Your task to perform on an android device: turn on airplane mode Image 0: 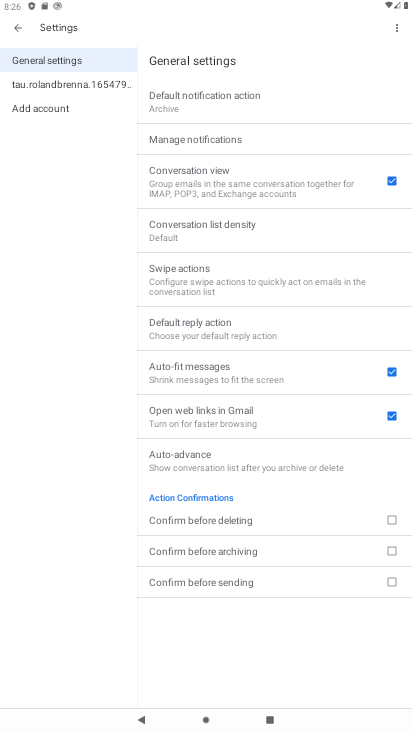
Step 0: drag from (226, 620) to (221, 410)
Your task to perform on an android device: turn on airplane mode Image 1: 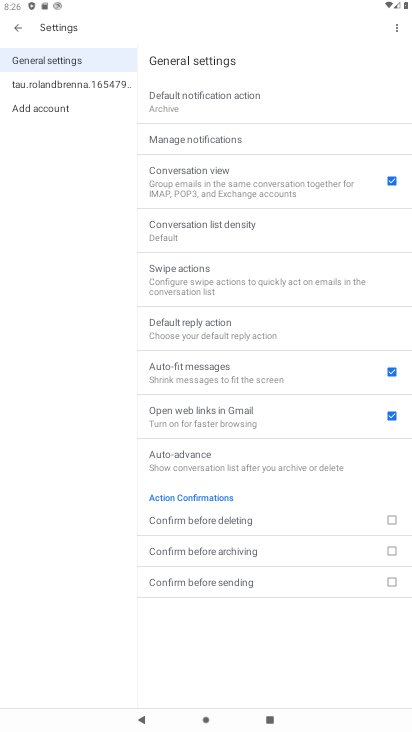
Step 1: press home button
Your task to perform on an android device: turn on airplane mode Image 2: 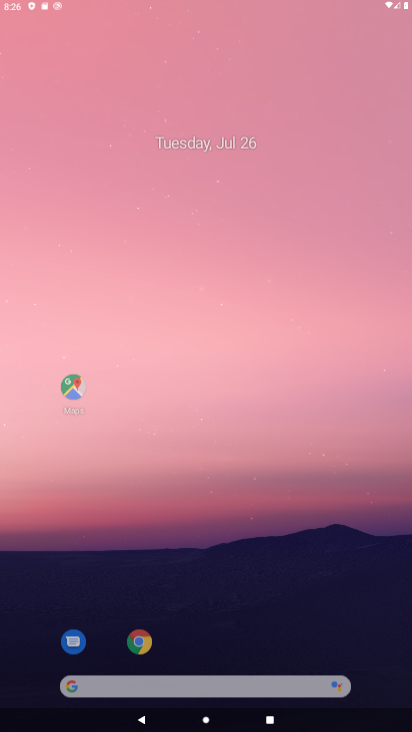
Step 2: drag from (218, 599) to (238, 3)
Your task to perform on an android device: turn on airplane mode Image 3: 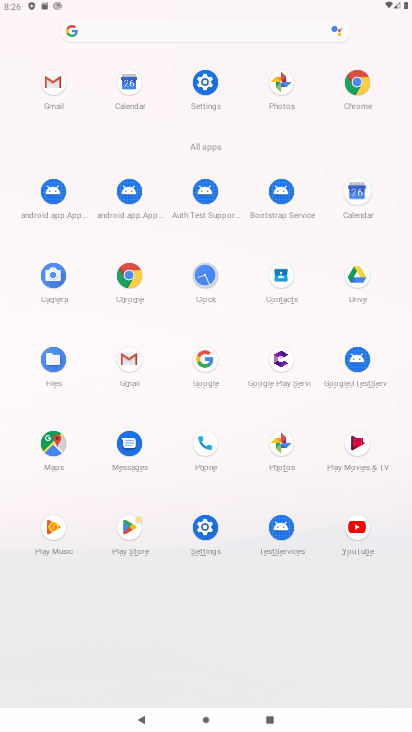
Step 3: click (200, 530)
Your task to perform on an android device: turn on airplane mode Image 4: 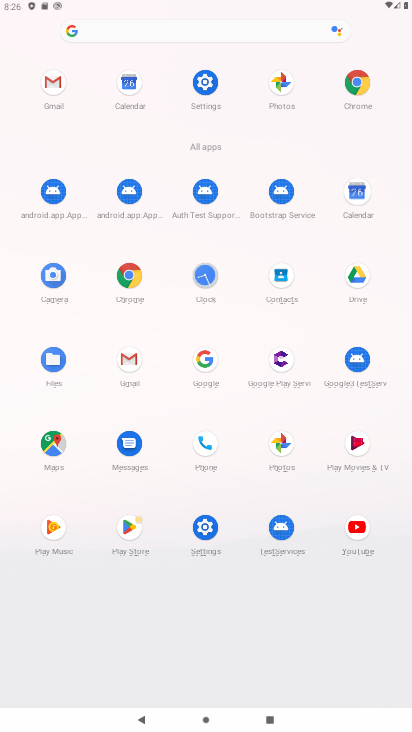
Step 4: click (200, 530)
Your task to perform on an android device: turn on airplane mode Image 5: 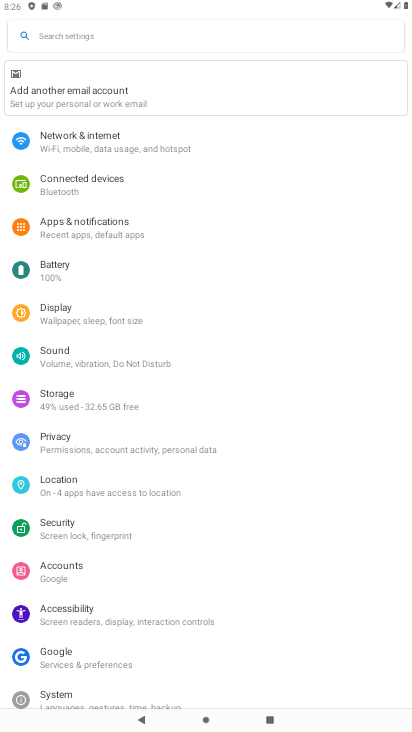
Step 5: drag from (125, 643) to (143, 422)
Your task to perform on an android device: turn on airplane mode Image 6: 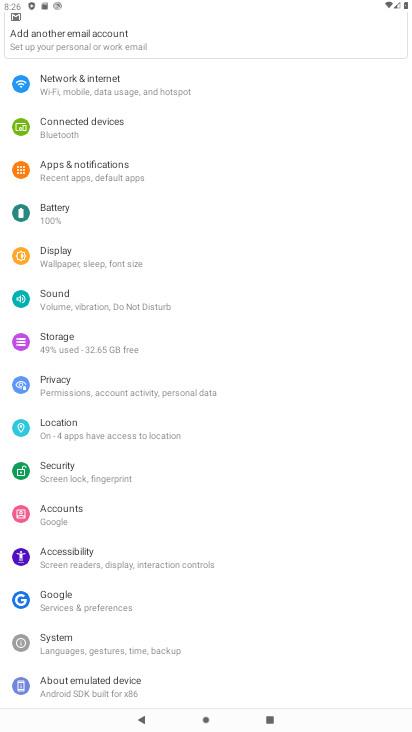
Step 6: click (112, 88)
Your task to perform on an android device: turn on airplane mode Image 7: 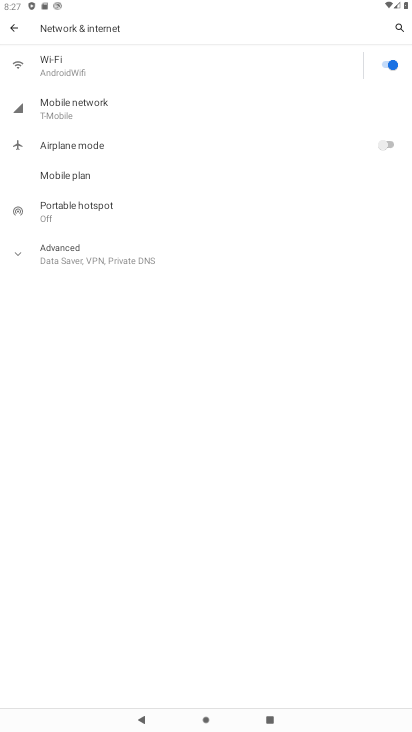
Step 7: click (93, 144)
Your task to perform on an android device: turn on airplane mode Image 8: 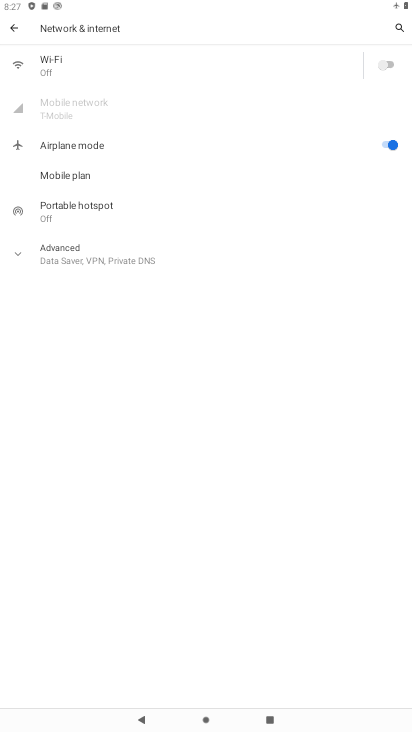
Step 8: task complete